Your task to perform on an android device: change the clock display to show seconds Image 0: 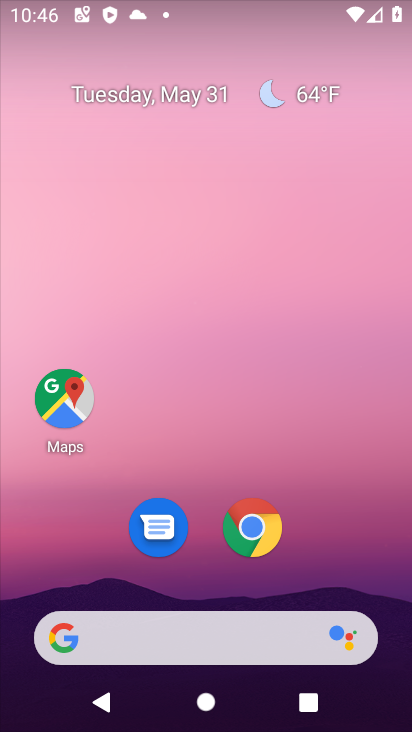
Step 0: drag from (144, 712) to (303, 0)
Your task to perform on an android device: change the clock display to show seconds Image 1: 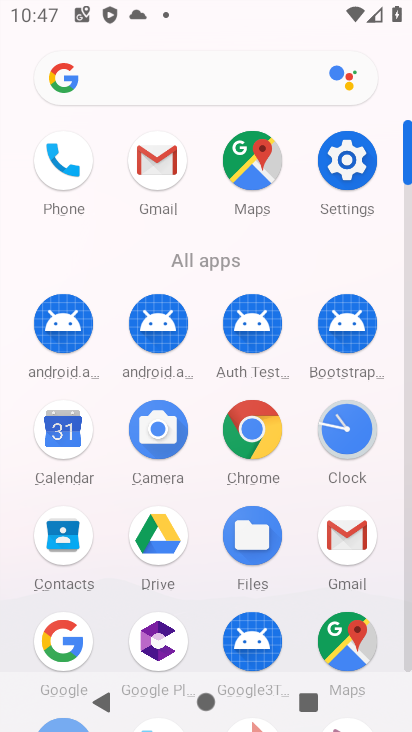
Step 1: click (335, 438)
Your task to perform on an android device: change the clock display to show seconds Image 2: 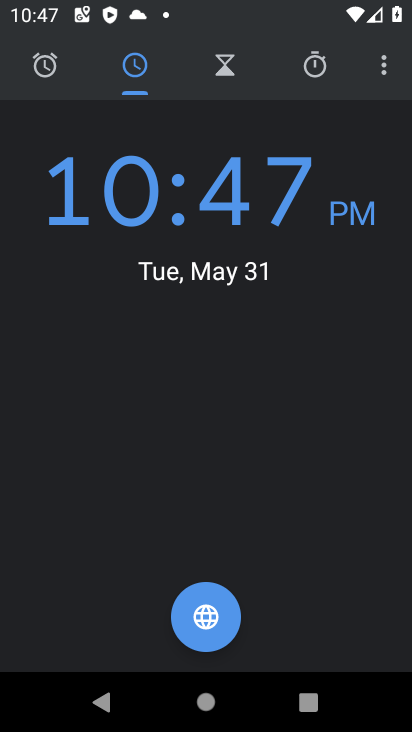
Step 2: click (390, 67)
Your task to perform on an android device: change the clock display to show seconds Image 3: 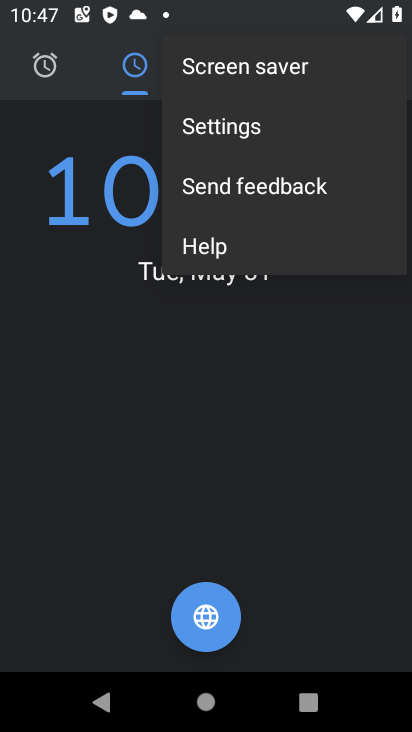
Step 3: click (206, 126)
Your task to perform on an android device: change the clock display to show seconds Image 4: 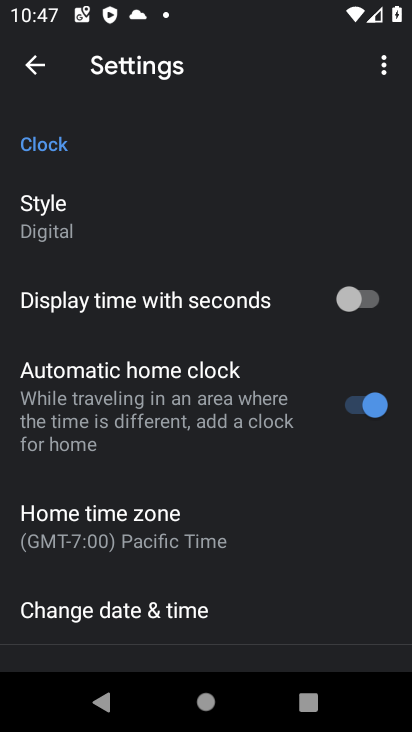
Step 4: click (89, 224)
Your task to perform on an android device: change the clock display to show seconds Image 5: 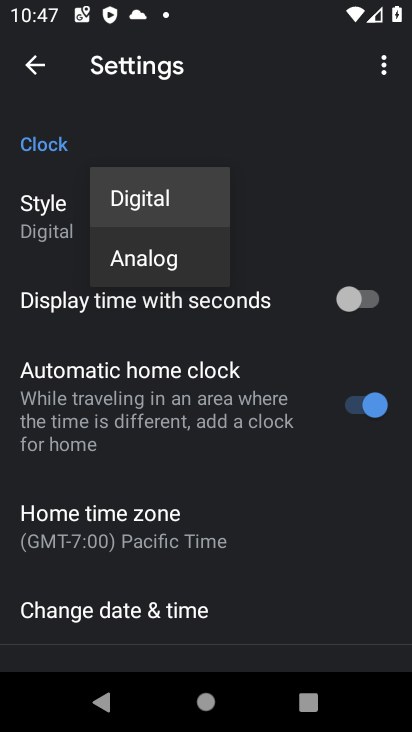
Step 5: click (350, 297)
Your task to perform on an android device: change the clock display to show seconds Image 6: 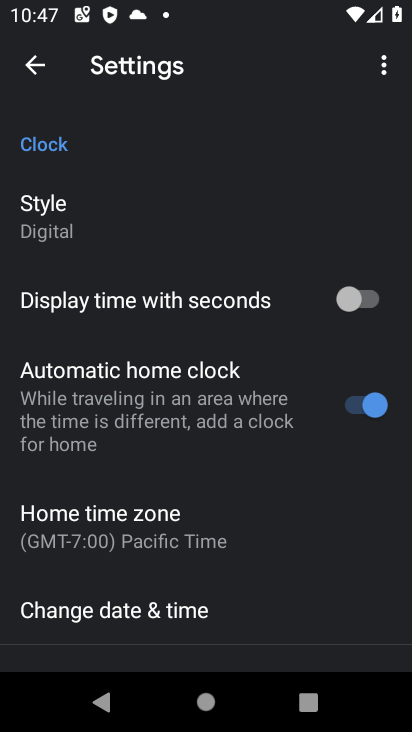
Step 6: click (364, 299)
Your task to perform on an android device: change the clock display to show seconds Image 7: 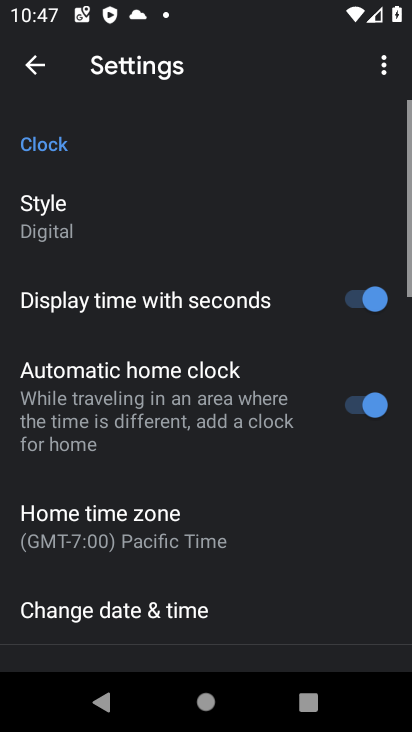
Step 7: task complete